Your task to perform on an android device: Go to Android settings Image 0: 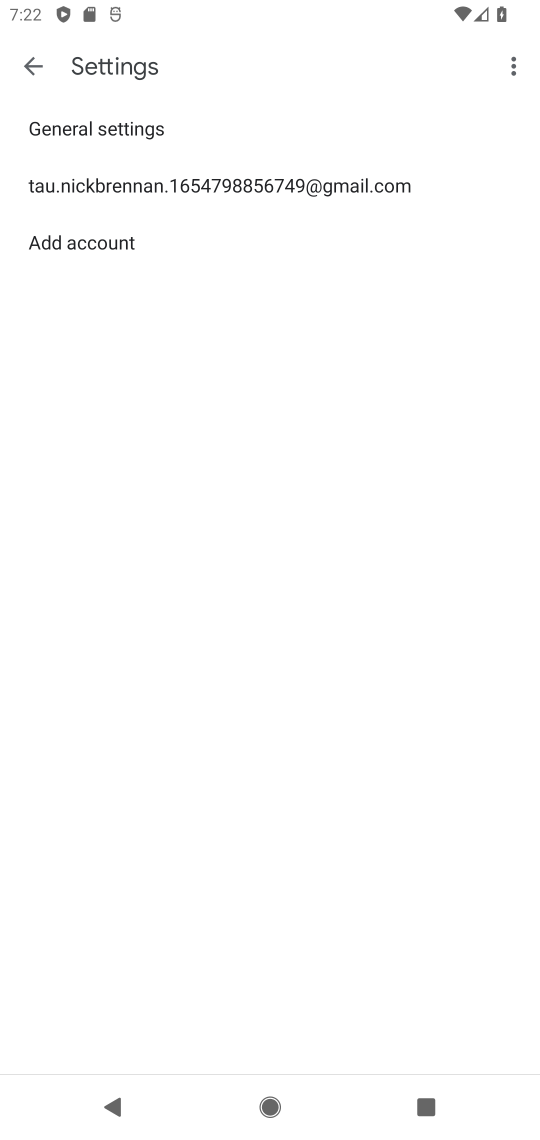
Step 0: press home button
Your task to perform on an android device: Go to Android settings Image 1: 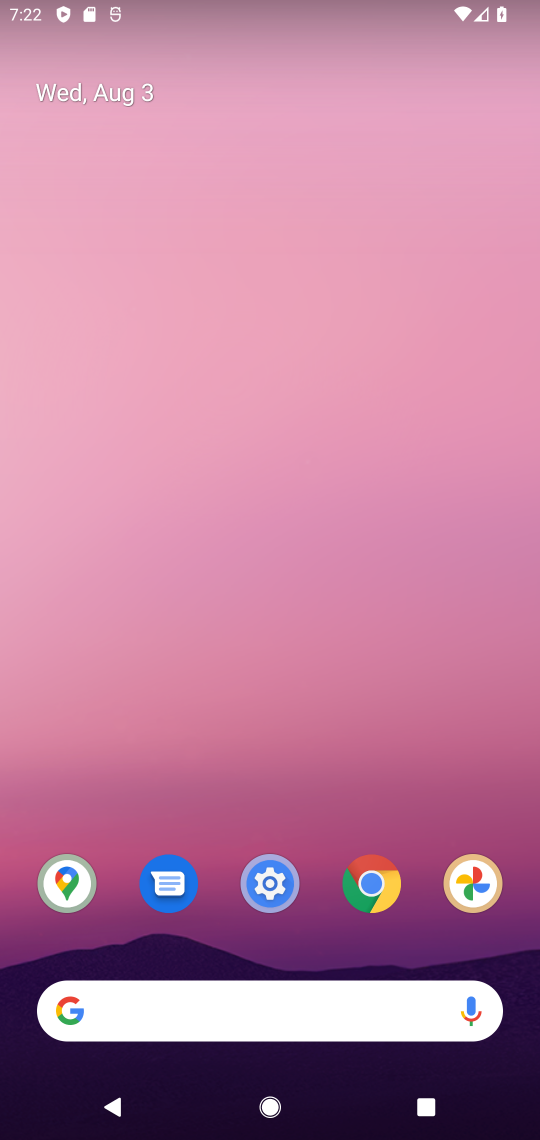
Step 1: click (269, 894)
Your task to perform on an android device: Go to Android settings Image 2: 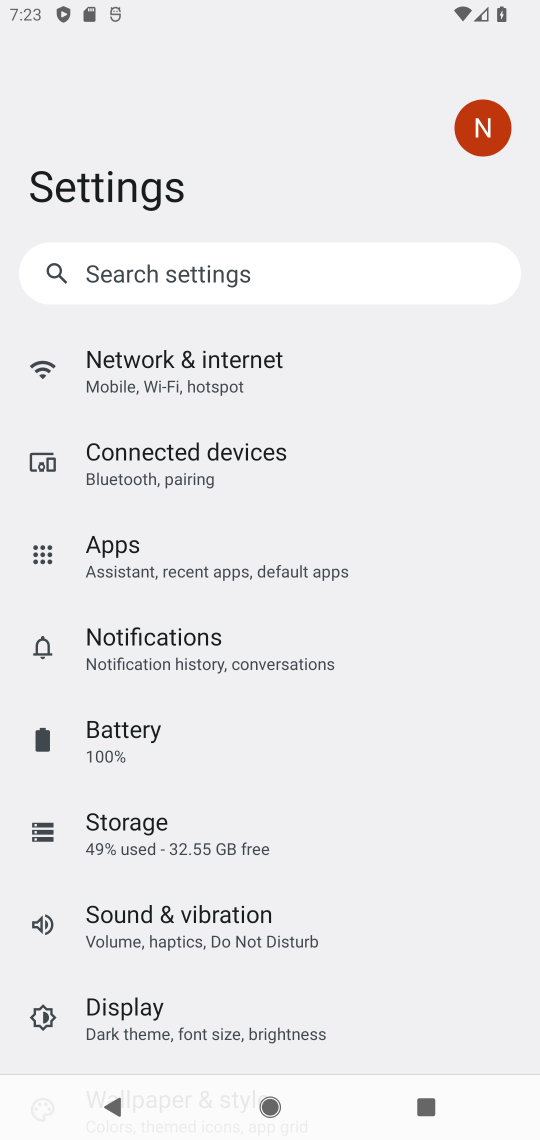
Step 2: task complete